Your task to perform on an android device: Go to ESPN.com Image 0: 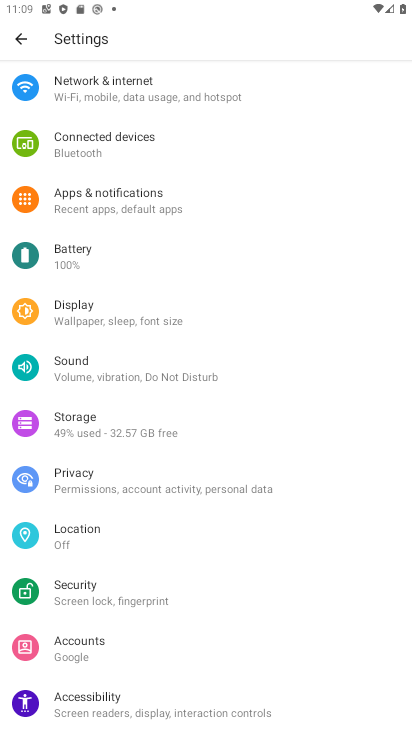
Step 0: press home button
Your task to perform on an android device: Go to ESPN.com Image 1: 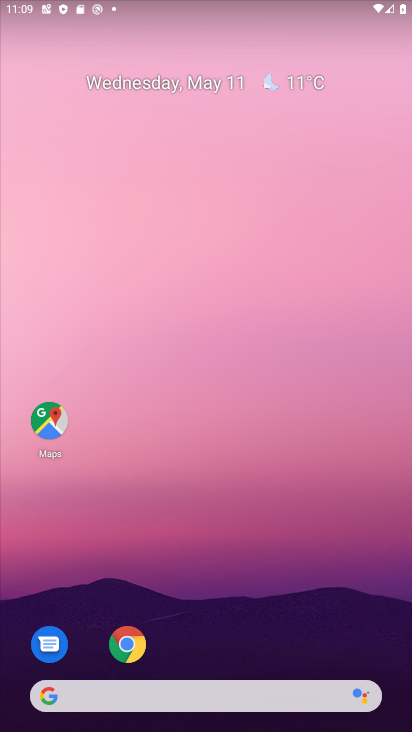
Step 1: click (124, 644)
Your task to perform on an android device: Go to ESPN.com Image 2: 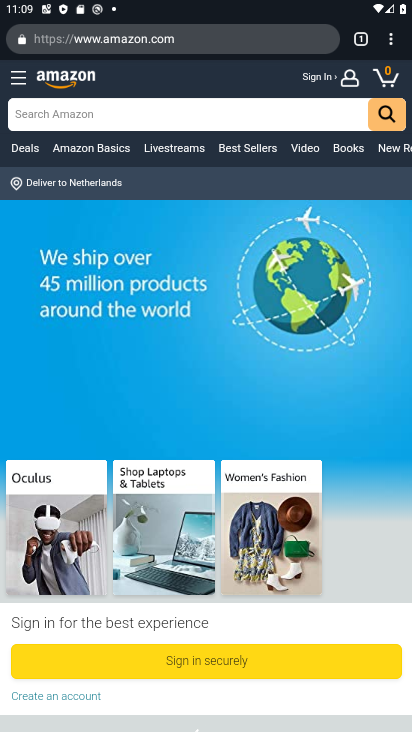
Step 2: click (360, 36)
Your task to perform on an android device: Go to ESPN.com Image 3: 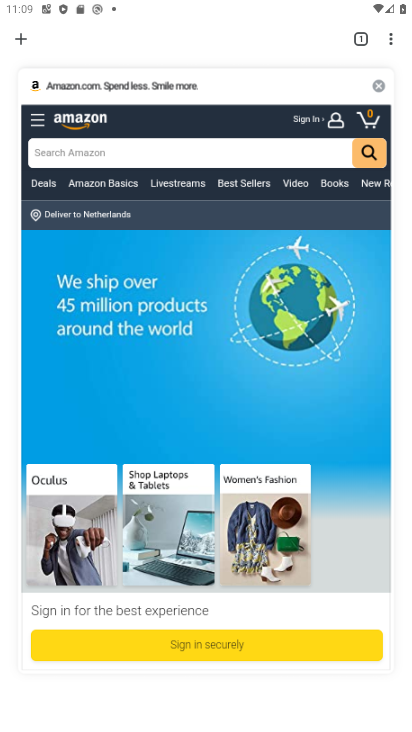
Step 3: click (378, 83)
Your task to perform on an android device: Go to ESPN.com Image 4: 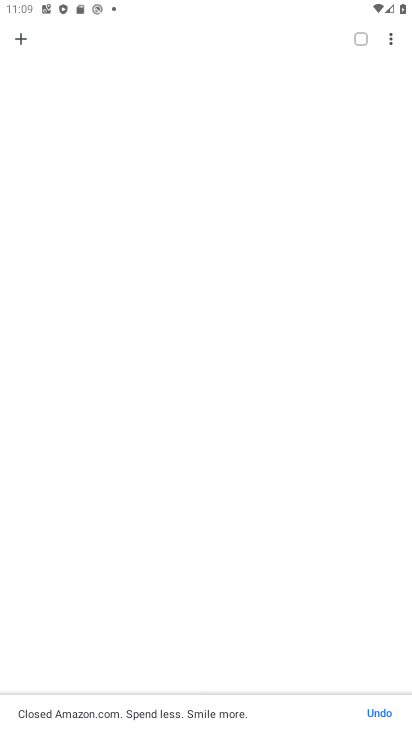
Step 4: click (26, 43)
Your task to perform on an android device: Go to ESPN.com Image 5: 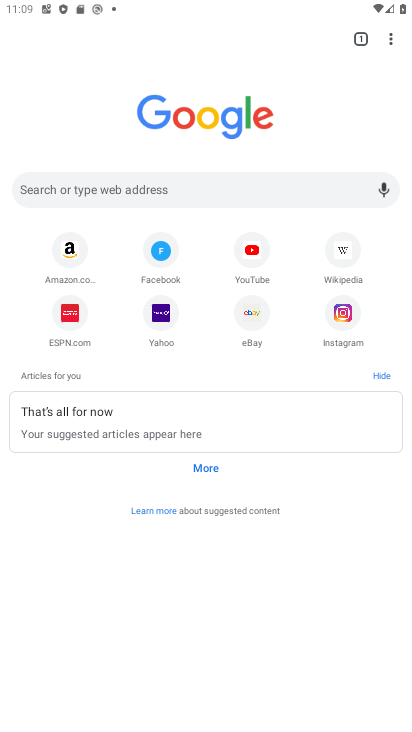
Step 5: click (69, 328)
Your task to perform on an android device: Go to ESPN.com Image 6: 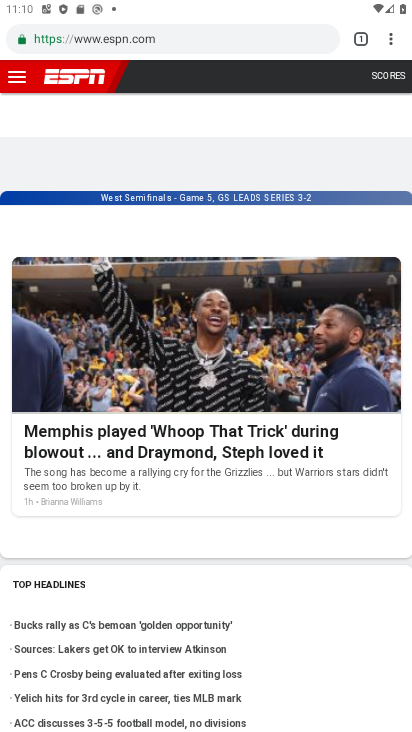
Step 6: task complete